Your task to perform on an android device: Add "amazon basics triple a" to the cart on target, then select checkout. Image 0: 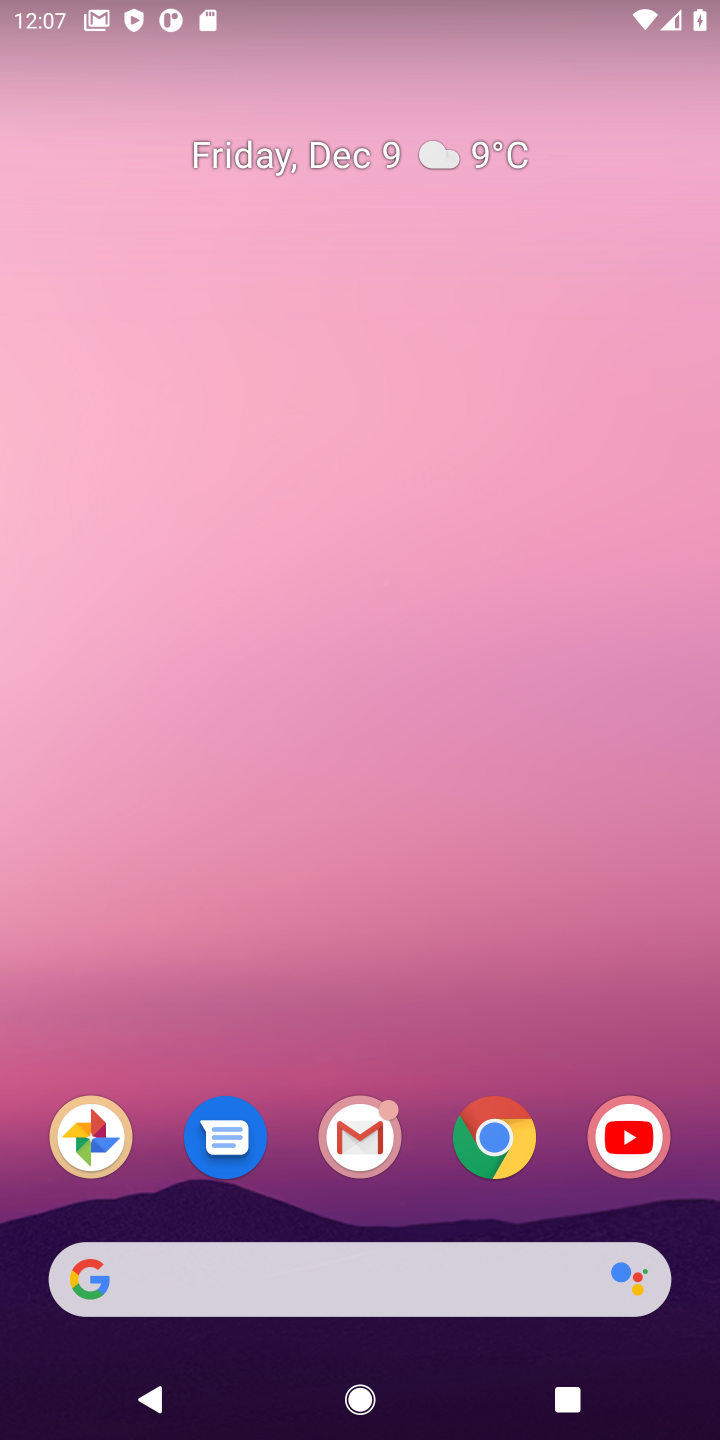
Step 0: click (322, 1282)
Your task to perform on an android device: Add "amazon basics triple a" to the cart on target, then select checkout. Image 1: 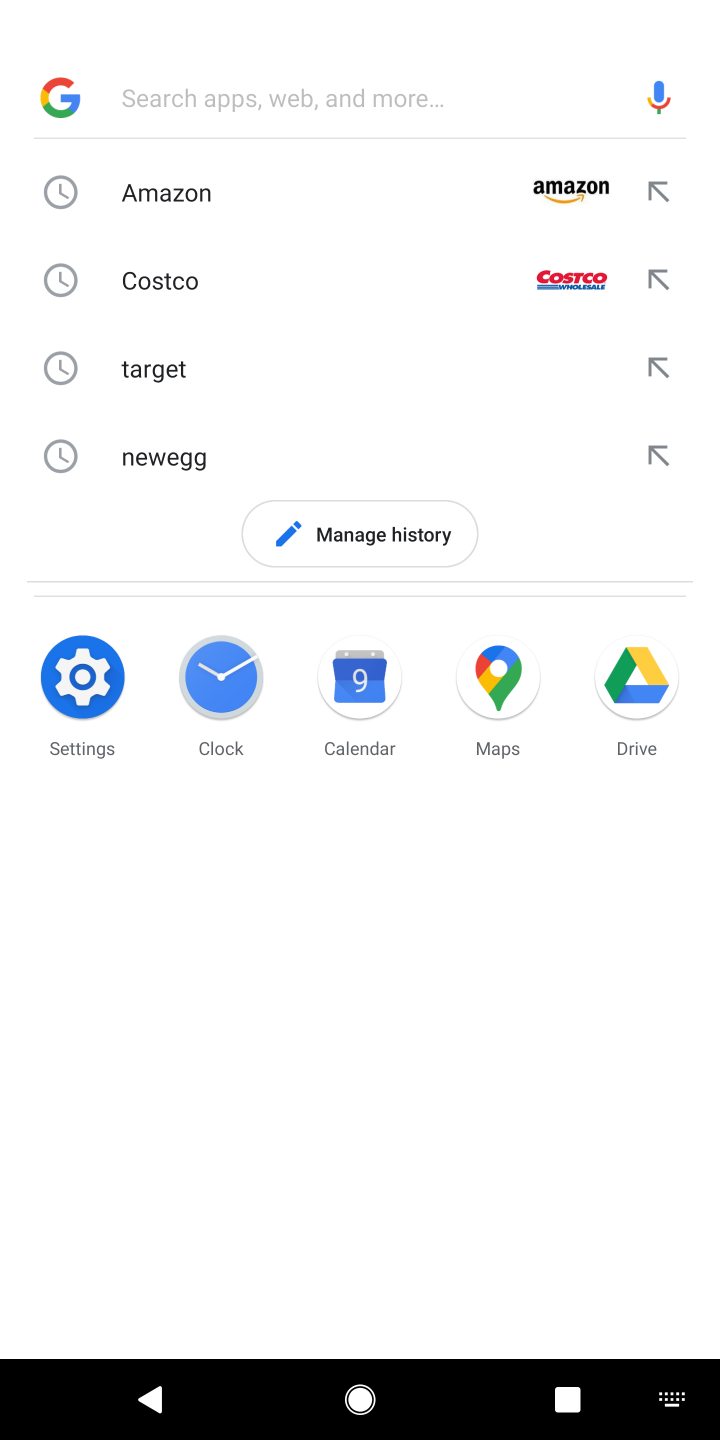
Step 1: click (125, 183)
Your task to perform on an android device: Add "amazon basics triple a" to the cart on target, then select checkout. Image 2: 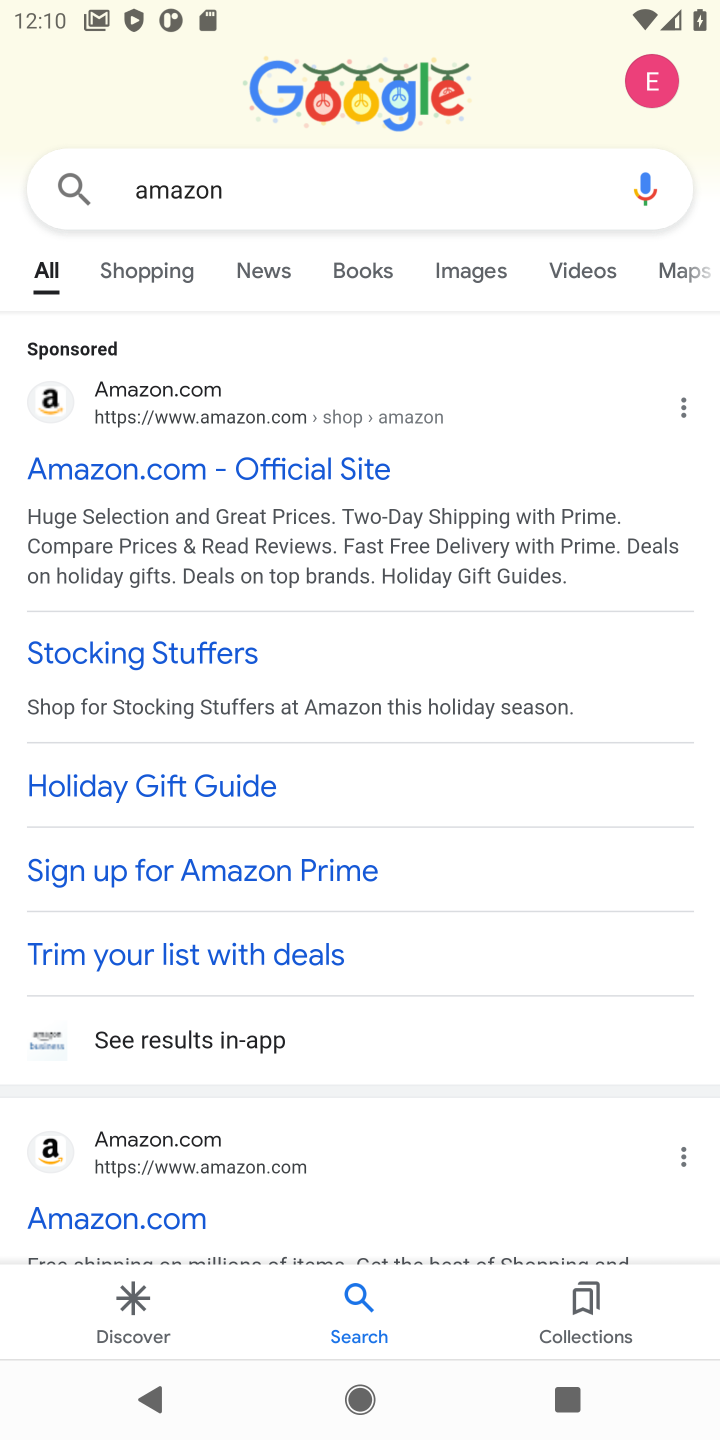
Step 2: click (57, 463)
Your task to perform on an android device: Add "amazon basics triple a" to the cart on target, then select checkout. Image 3: 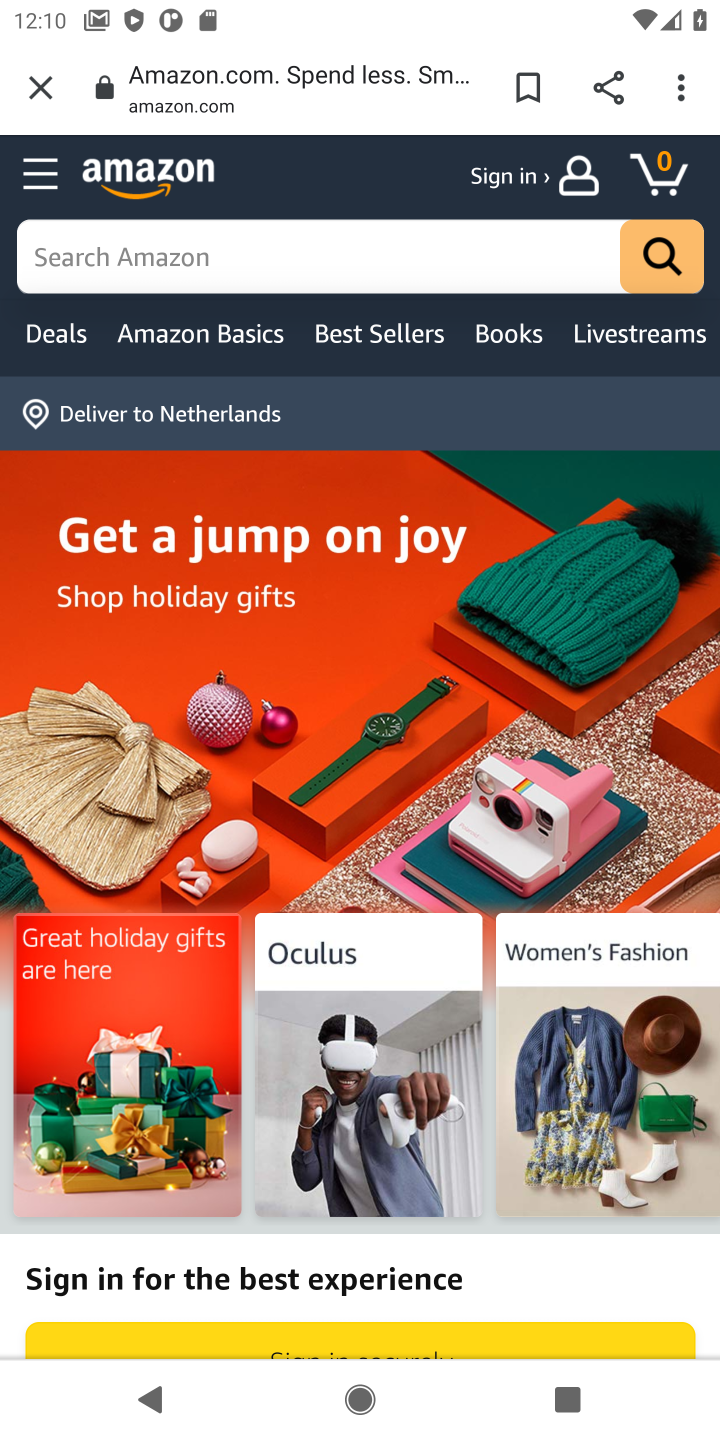
Step 3: task complete